Your task to perform on an android device: turn off smart reply in the gmail app Image 0: 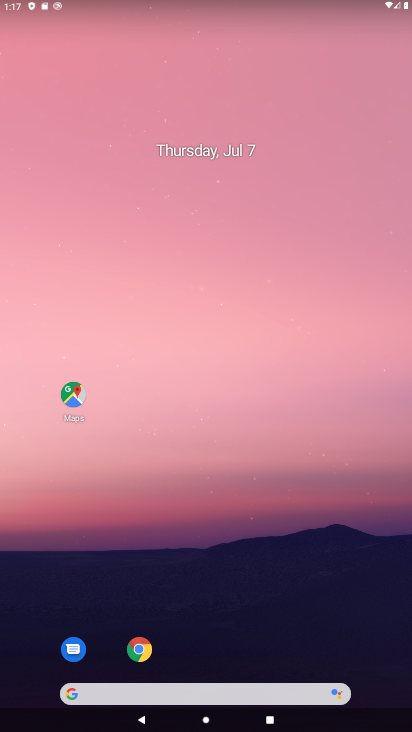
Step 0: drag from (383, 656) to (330, 61)
Your task to perform on an android device: turn off smart reply in the gmail app Image 1: 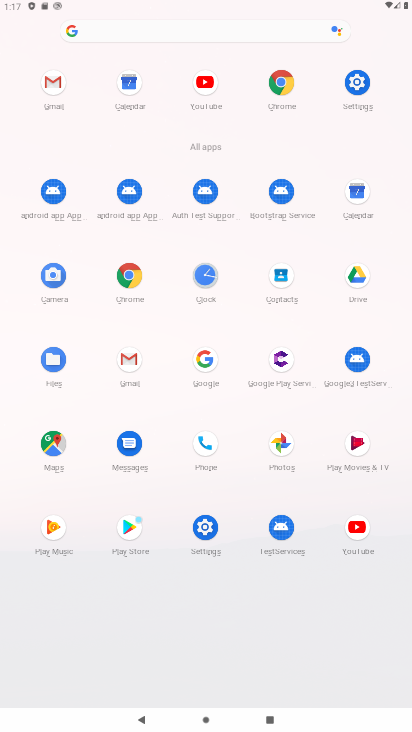
Step 1: click (127, 360)
Your task to perform on an android device: turn off smart reply in the gmail app Image 2: 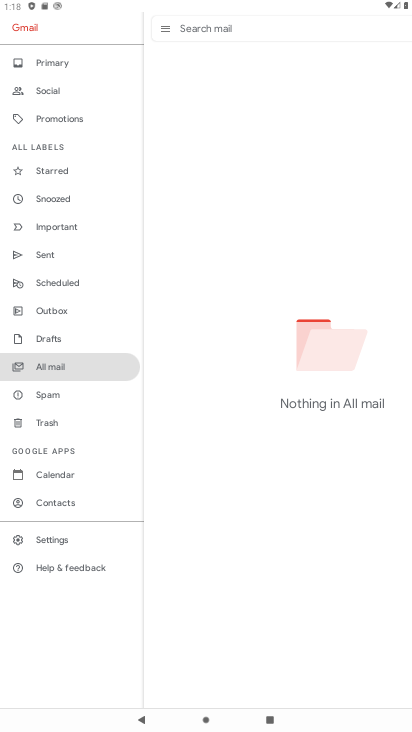
Step 2: click (41, 532)
Your task to perform on an android device: turn off smart reply in the gmail app Image 3: 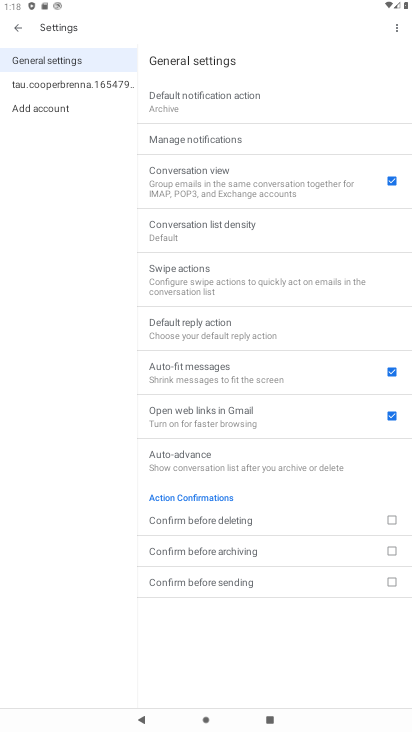
Step 3: click (55, 87)
Your task to perform on an android device: turn off smart reply in the gmail app Image 4: 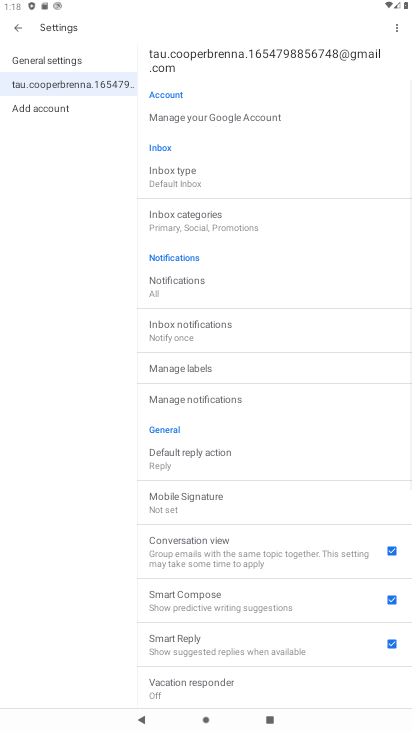
Step 4: drag from (269, 613) to (278, 198)
Your task to perform on an android device: turn off smart reply in the gmail app Image 5: 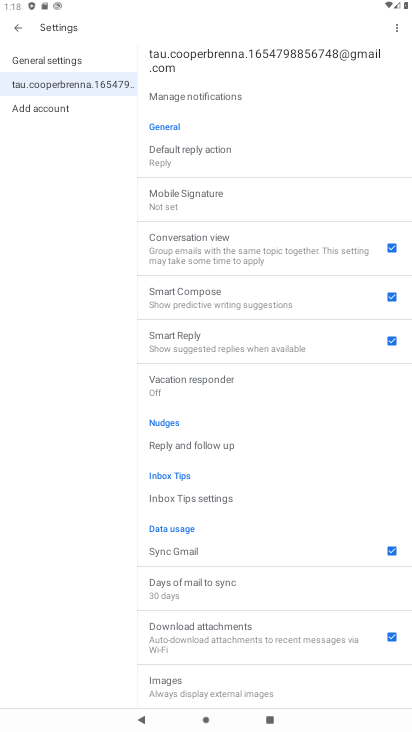
Step 5: click (391, 338)
Your task to perform on an android device: turn off smart reply in the gmail app Image 6: 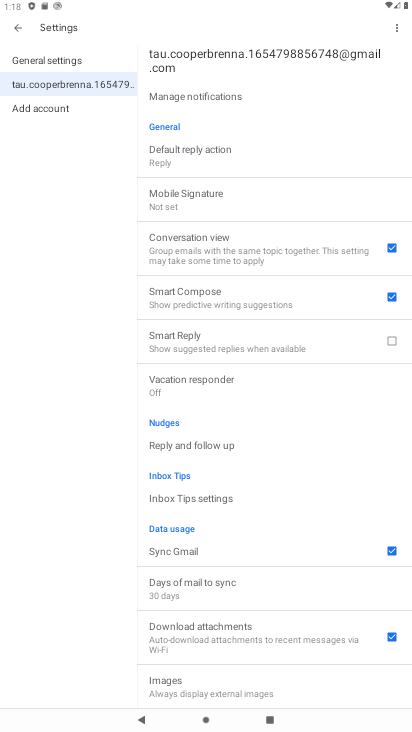
Step 6: task complete